Your task to perform on an android device: Go to Amazon Image 0: 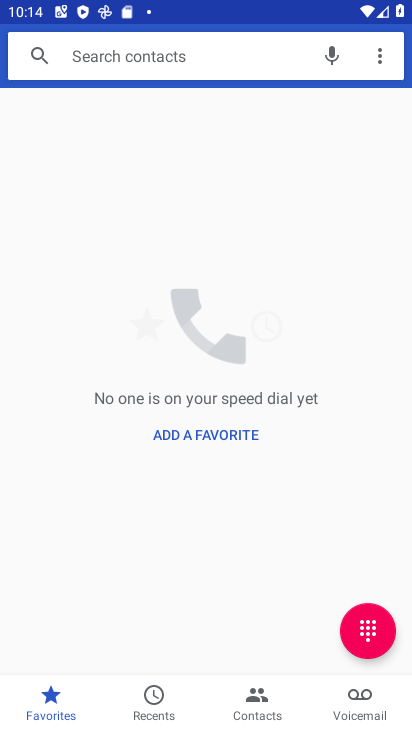
Step 0: drag from (268, 568) to (202, 32)
Your task to perform on an android device: Go to Amazon Image 1: 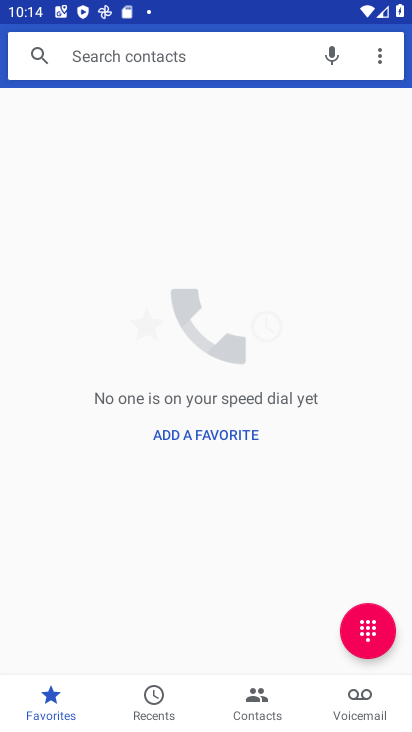
Step 1: press home button
Your task to perform on an android device: Go to Amazon Image 2: 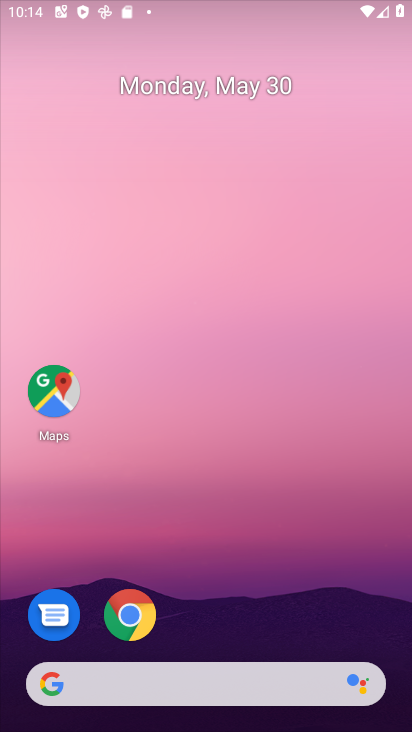
Step 2: click (140, 620)
Your task to perform on an android device: Go to Amazon Image 3: 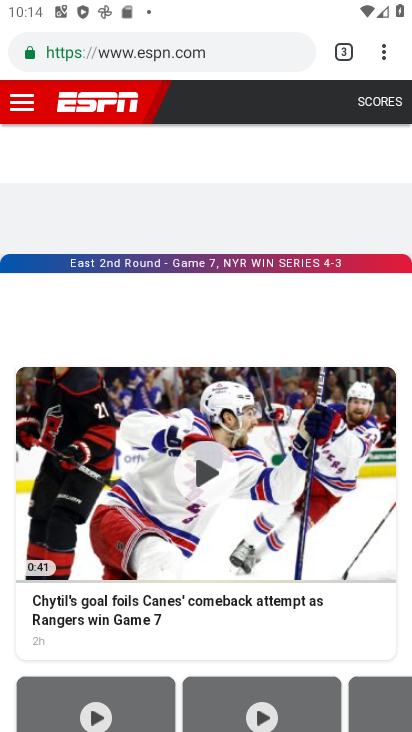
Step 3: click (343, 44)
Your task to perform on an android device: Go to Amazon Image 4: 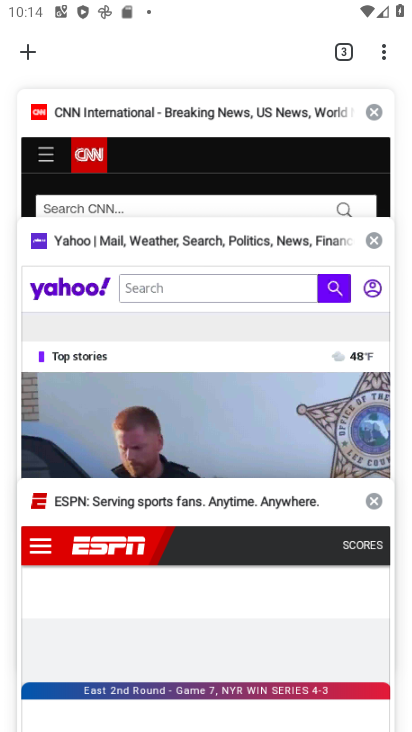
Step 4: click (25, 51)
Your task to perform on an android device: Go to Amazon Image 5: 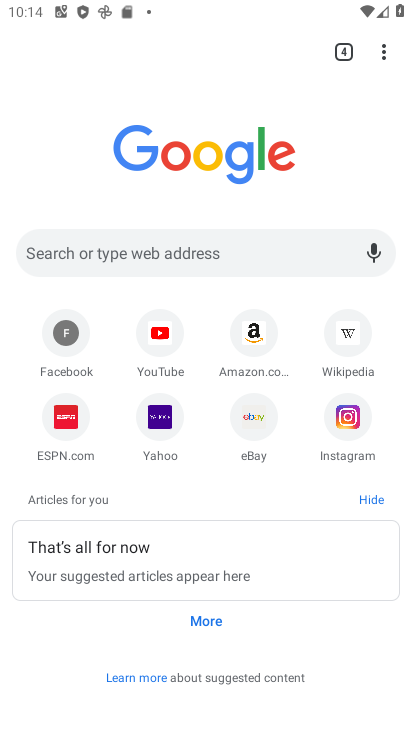
Step 5: click (252, 329)
Your task to perform on an android device: Go to Amazon Image 6: 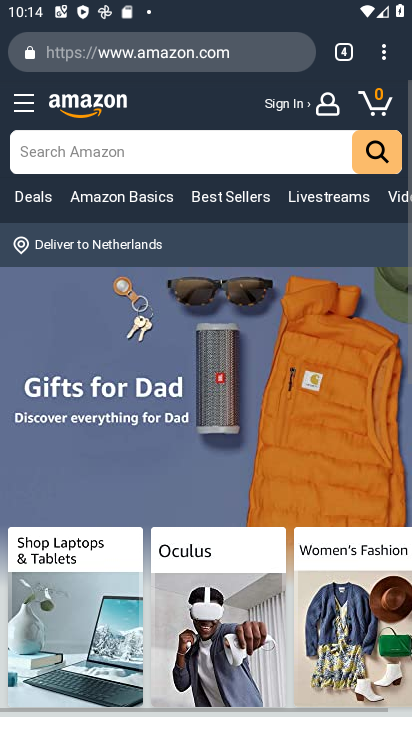
Step 6: task complete